Your task to perform on an android device: Show the shopping cart on amazon.com. Add "macbook pro" to the cart on amazon.com Image 0: 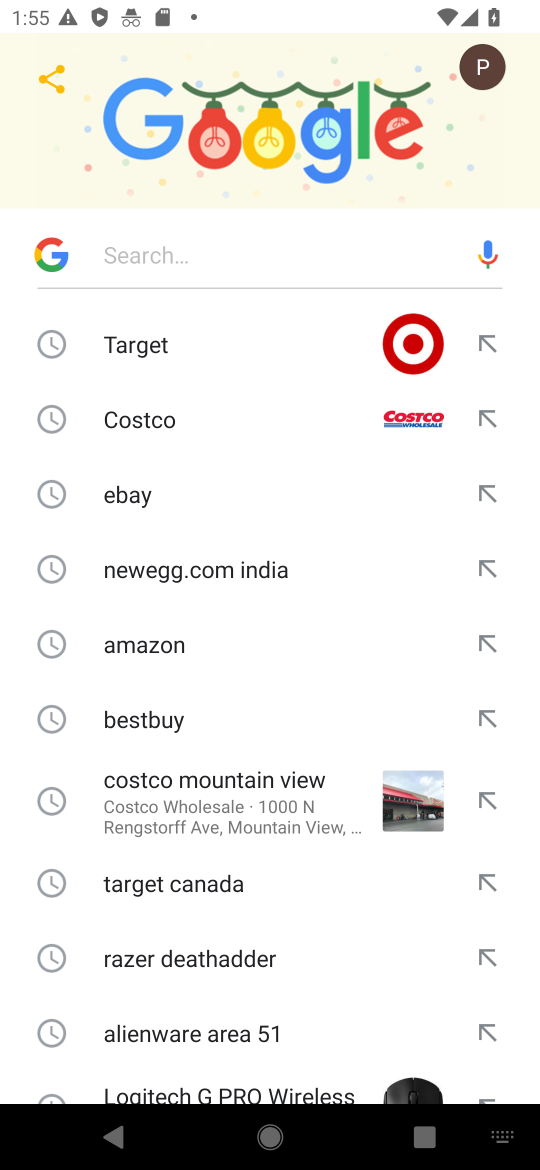
Step 0: task complete